Your task to perform on an android device: Open privacy settings Image 0: 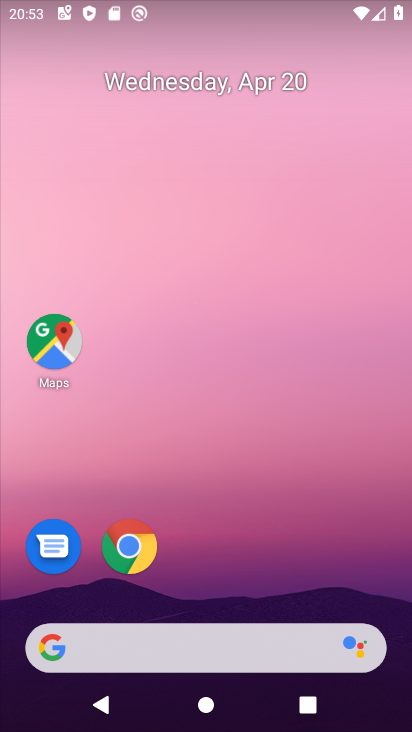
Step 0: drag from (281, 569) to (247, 82)
Your task to perform on an android device: Open privacy settings Image 1: 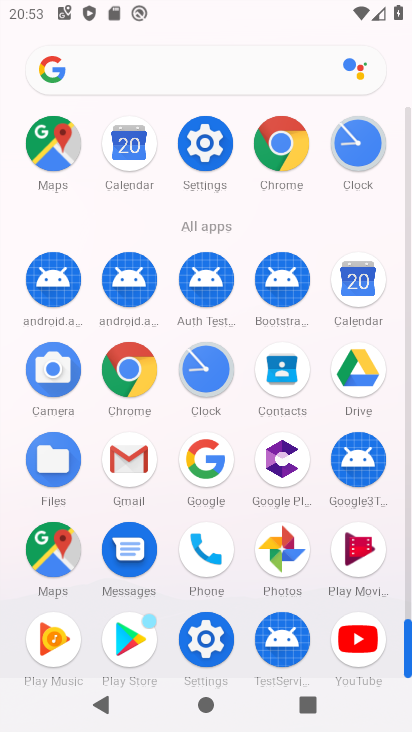
Step 1: click (189, 143)
Your task to perform on an android device: Open privacy settings Image 2: 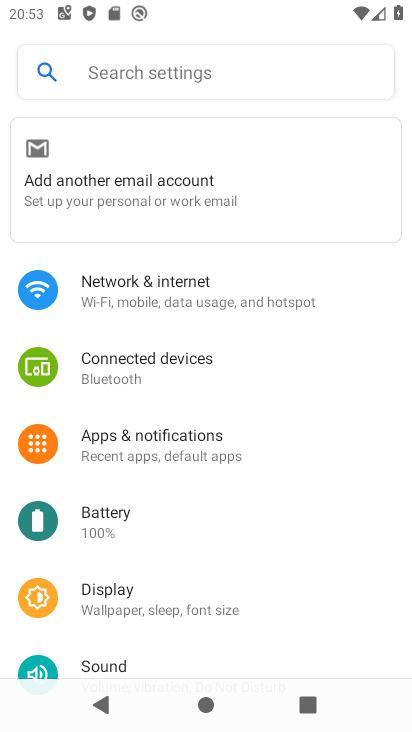
Step 2: drag from (280, 524) to (200, 172)
Your task to perform on an android device: Open privacy settings Image 3: 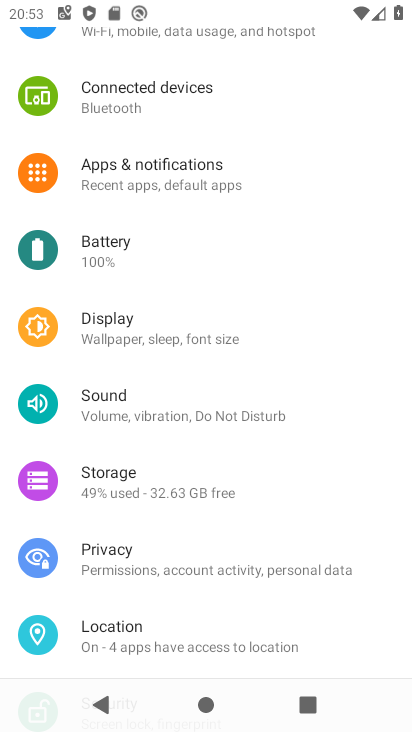
Step 3: click (125, 559)
Your task to perform on an android device: Open privacy settings Image 4: 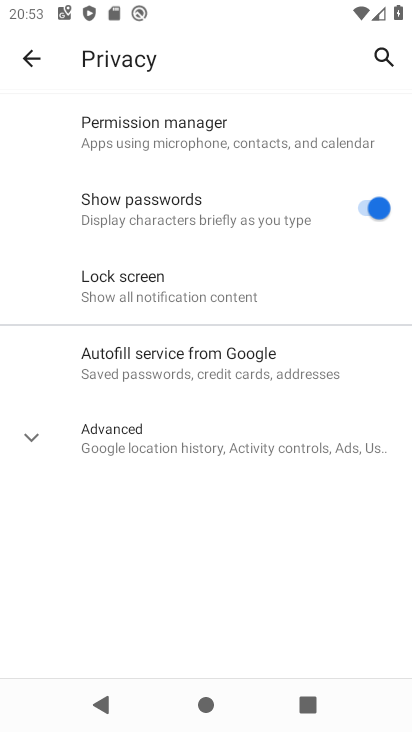
Step 4: task complete